Your task to perform on an android device: Open Google Chrome and click the shortcut for Amazon.com Image 0: 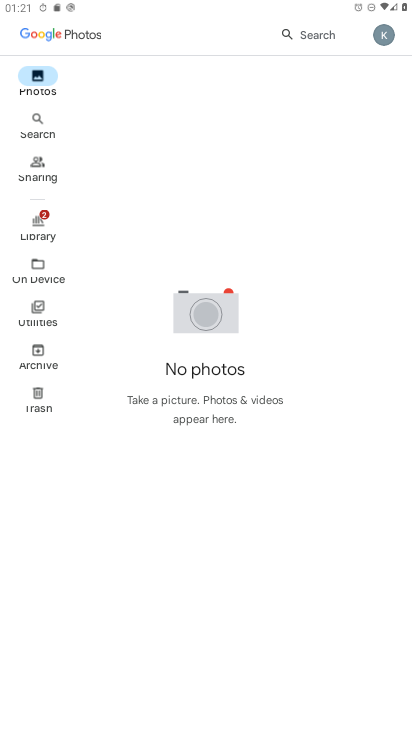
Step 0: press home button
Your task to perform on an android device: Open Google Chrome and click the shortcut for Amazon.com Image 1: 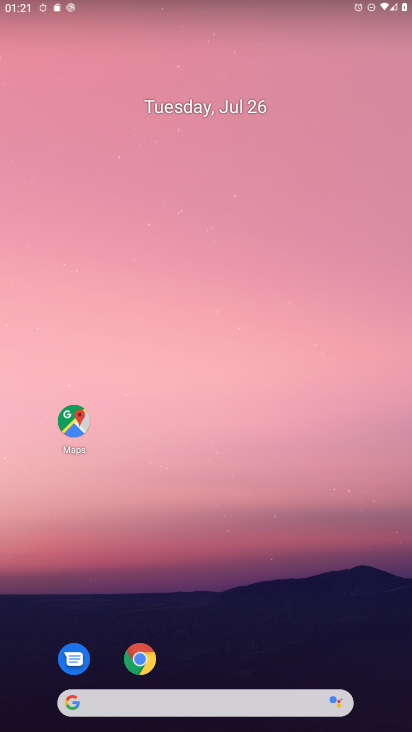
Step 1: drag from (252, 653) to (265, 162)
Your task to perform on an android device: Open Google Chrome and click the shortcut for Amazon.com Image 2: 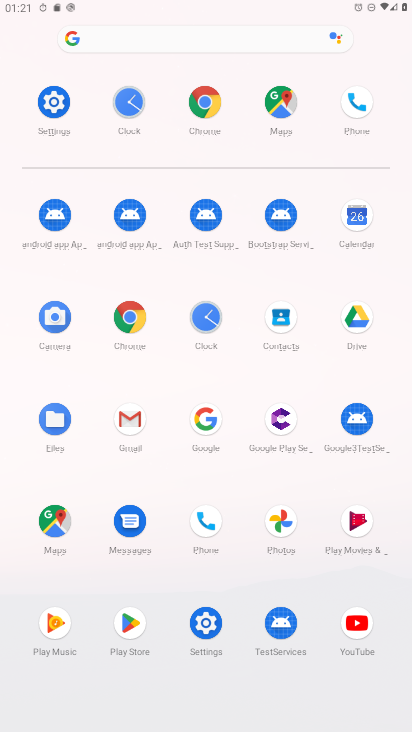
Step 2: click (118, 320)
Your task to perform on an android device: Open Google Chrome and click the shortcut for Amazon.com Image 3: 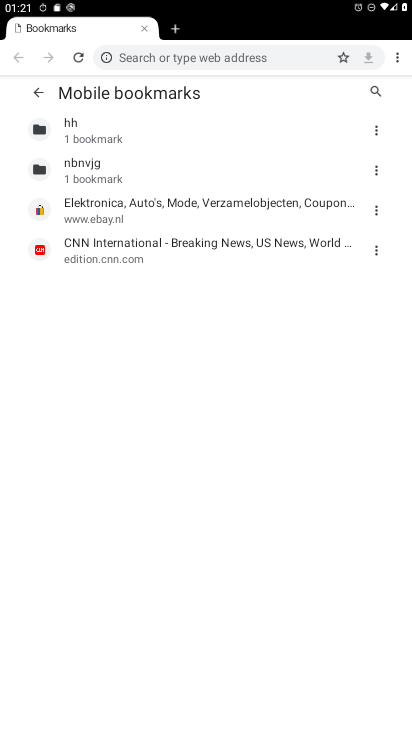
Step 3: drag from (396, 55) to (306, 99)
Your task to perform on an android device: Open Google Chrome and click the shortcut for Amazon.com Image 4: 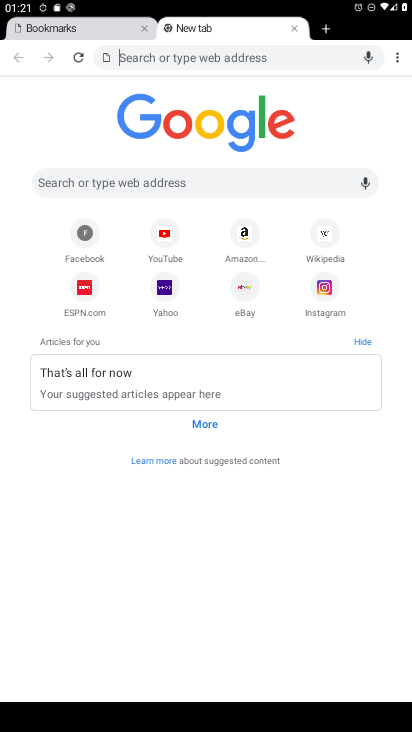
Step 4: click (245, 235)
Your task to perform on an android device: Open Google Chrome and click the shortcut for Amazon.com Image 5: 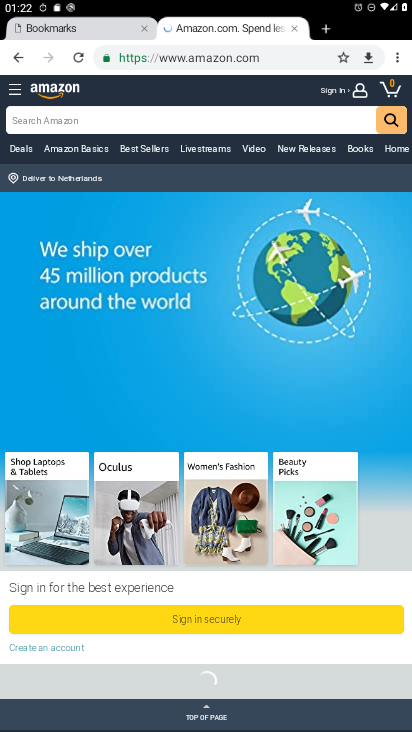
Step 5: task complete